Your task to perform on an android device: turn off picture-in-picture Image 0: 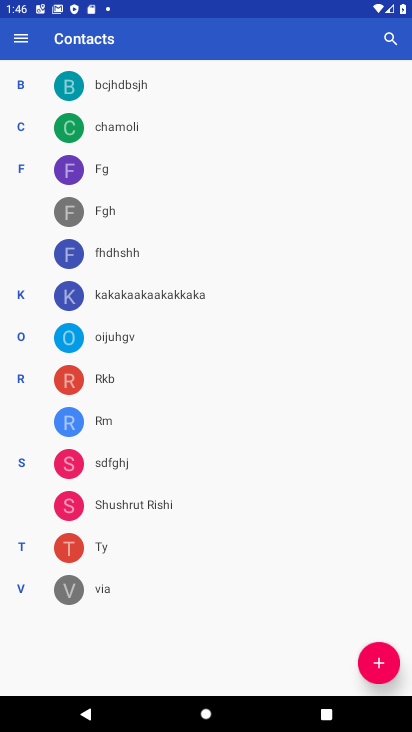
Step 0: press home button
Your task to perform on an android device: turn off picture-in-picture Image 1: 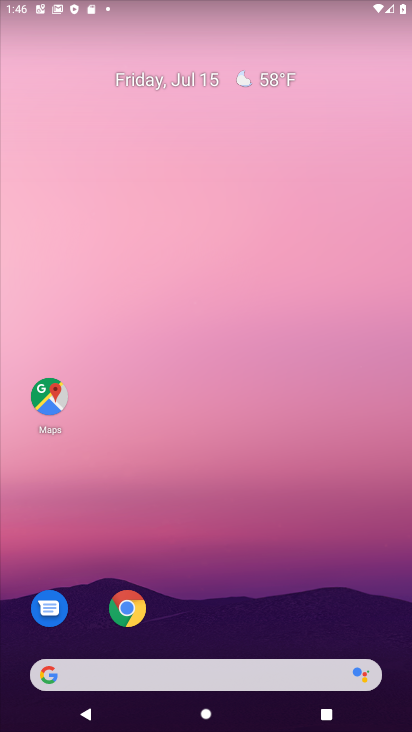
Step 1: drag from (282, 572) to (247, 103)
Your task to perform on an android device: turn off picture-in-picture Image 2: 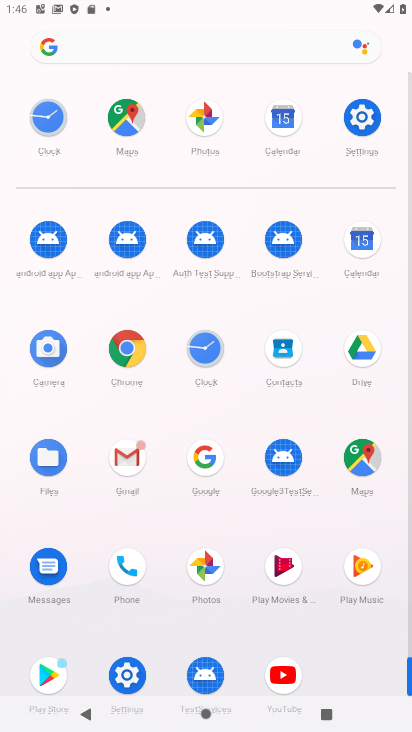
Step 2: click (131, 343)
Your task to perform on an android device: turn off picture-in-picture Image 3: 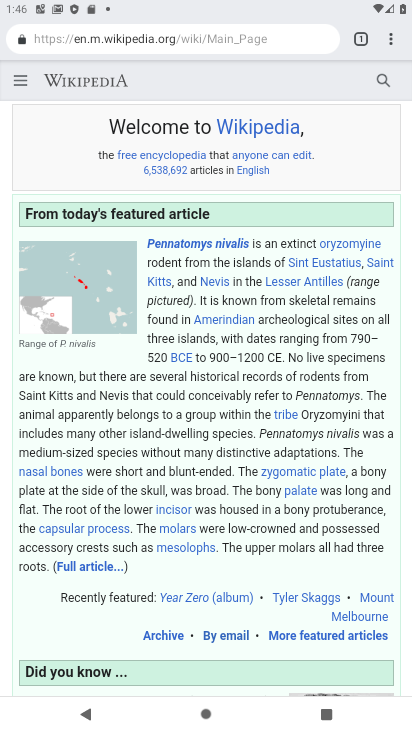
Step 3: click (389, 35)
Your task to perform on an android device: turn off picture-in-picture Image 4: 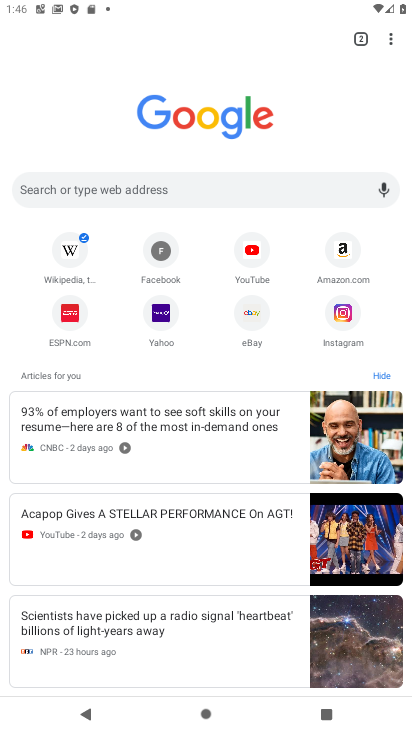
Step 4: press home button
Your task to perform on an android device: turn off picture-in-picture Image 5: 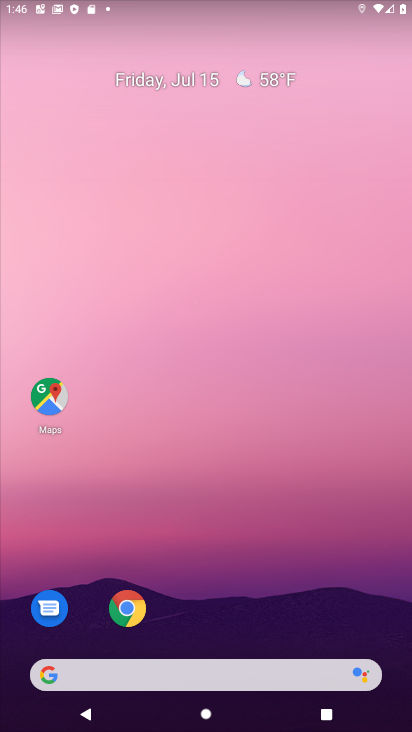
Step 5: click (126, 609)
Your task to perform on an android device: turn off picture-in-picture Image 6: 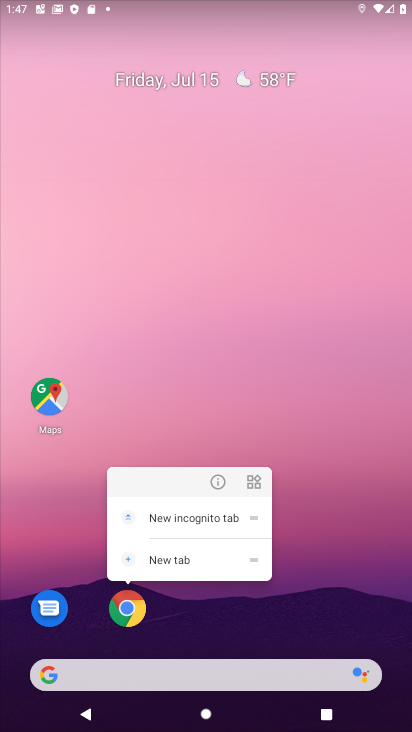
Step 6: click (211, 474)
Your task to perform on an android device: turn off picture-in-picture Image 7: 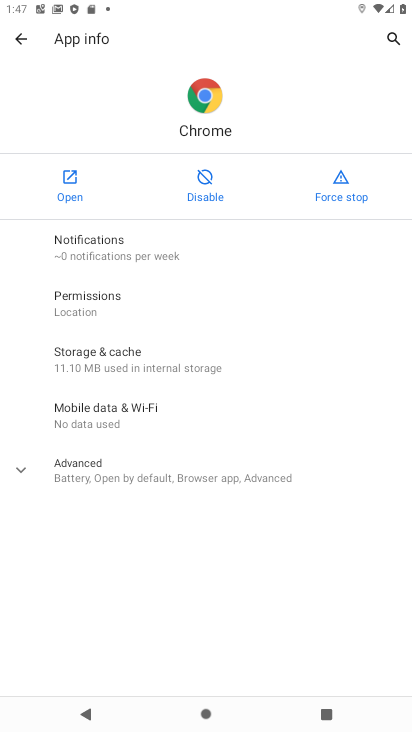
Step 7: click (105, 457)
Your task to perform on an android device: turn off picture-in-picture Image 8: 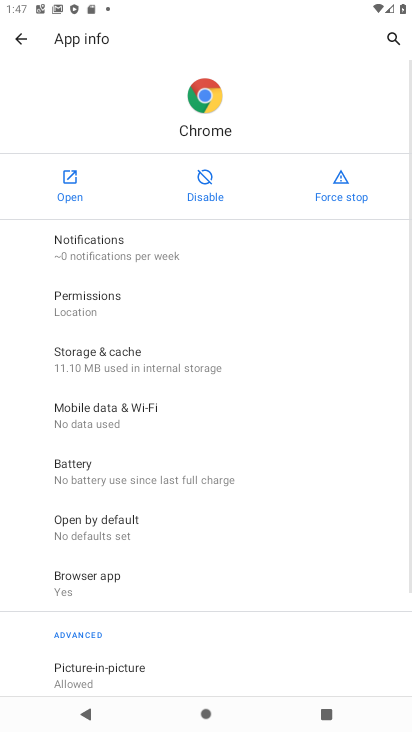
Step 8: drag from (154, 602) to (174, 234)
Your task to perform on an android device: turn off picture-in-picture Image 9: 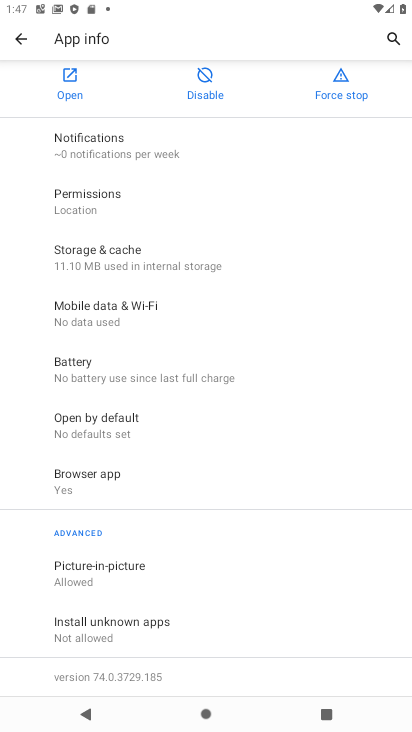
Step 9: click (89, 566)
Your task to perform on an android device: turn off picture-in-picture Image 10: 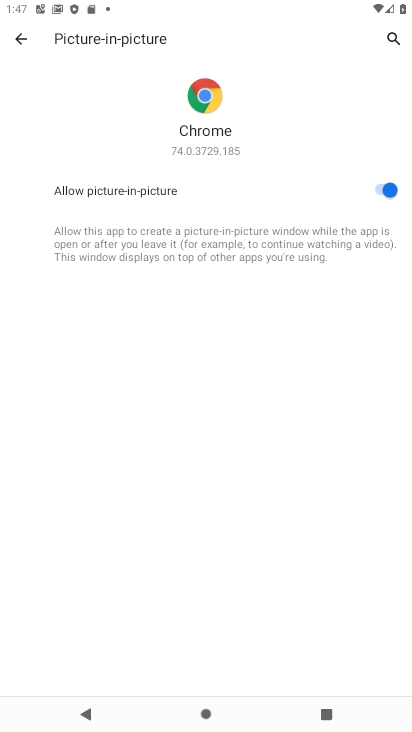
Step 10: click (272, 182)
Your task to perform on an android device: turn off picture-in-picture Image 11: 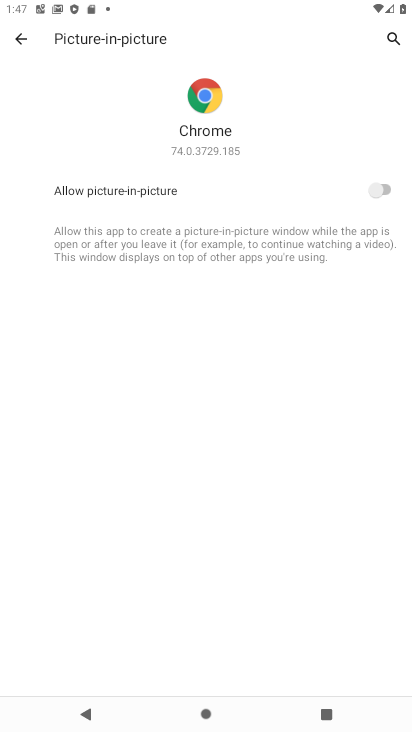
Step 11: task complete